Your task to perform on an android device: toggle data saver in the chrome app Image 0: 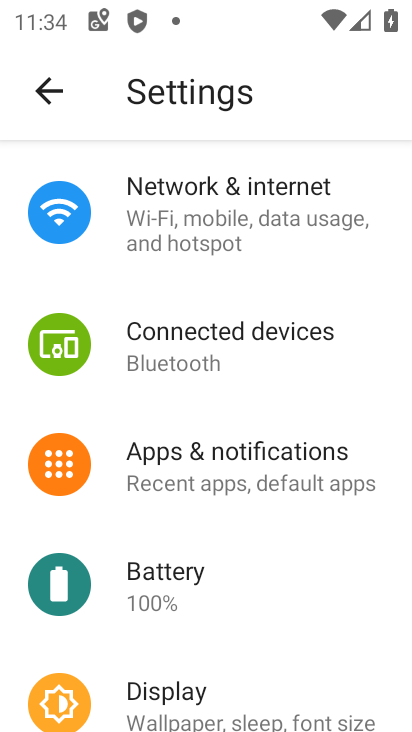
Step 0: press home button
Your task to perform on an android device: toggle data saver in the chrome app Image 1: 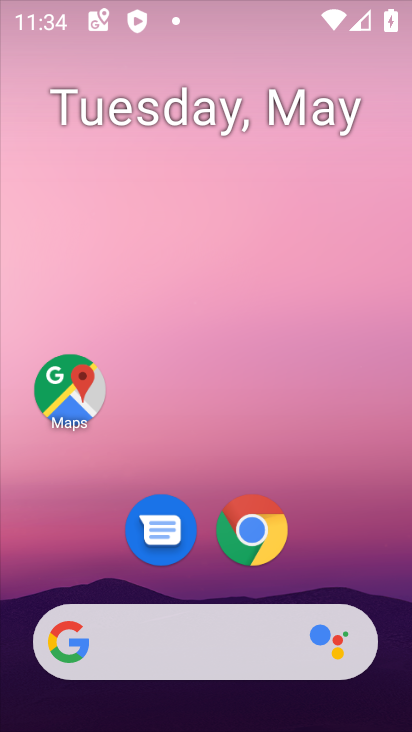
Step 1: drag from (260, 641) to (268, 223)
Your task to perform on an android device: toggle data saver in the chrome app Image 2: 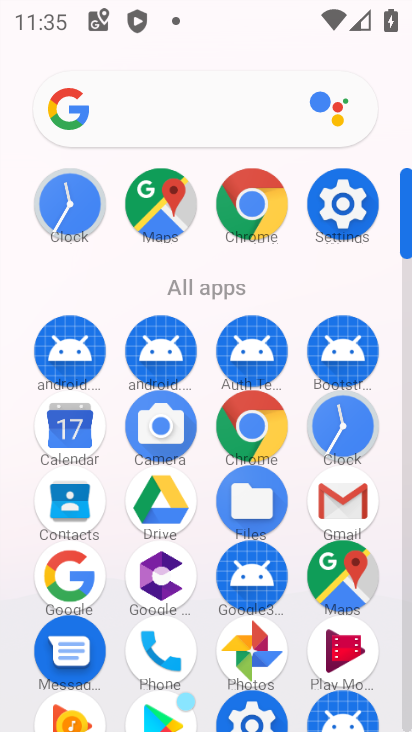
Step 2: click (220, 417)
Your task to perform on an android device: toggle data saver in the chrome app Image 3: 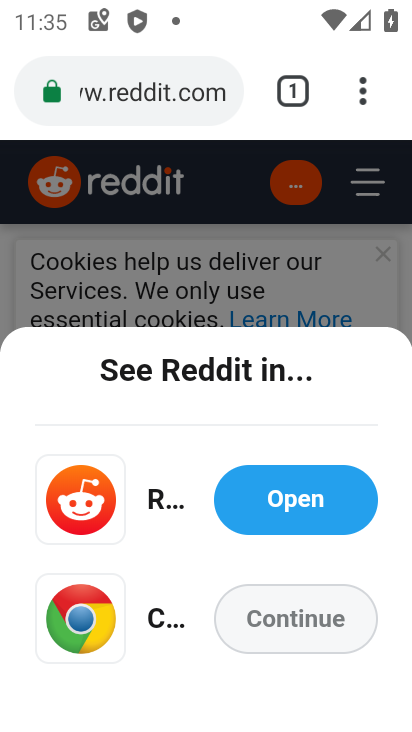
Step 3: click (247, 373)
Your task to perform on an android device: toggle data saver in the chrome app Image 4: 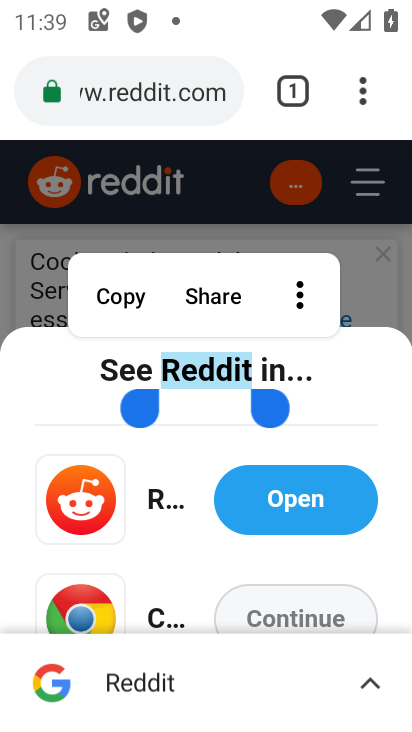
Step 4: drag from (354, 89) to (167, 549)
Your task to perform on an android device: toggle data saver in the chrome app Image 5: 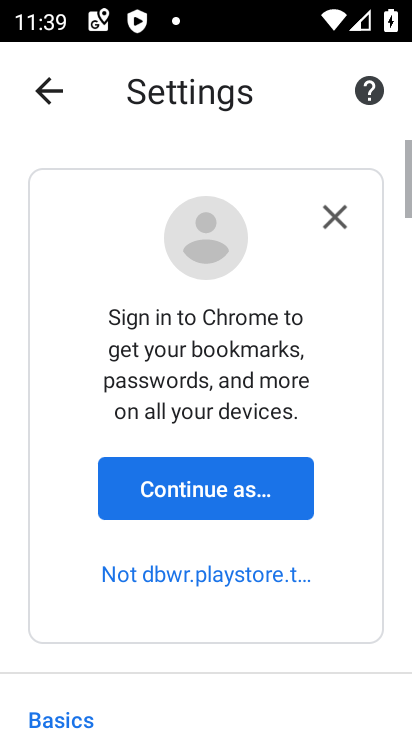
Step 5: drag from (186, 595) to (182, 161)
Your task to perform on an android device: toggle data saver in the chrome app Image 6: 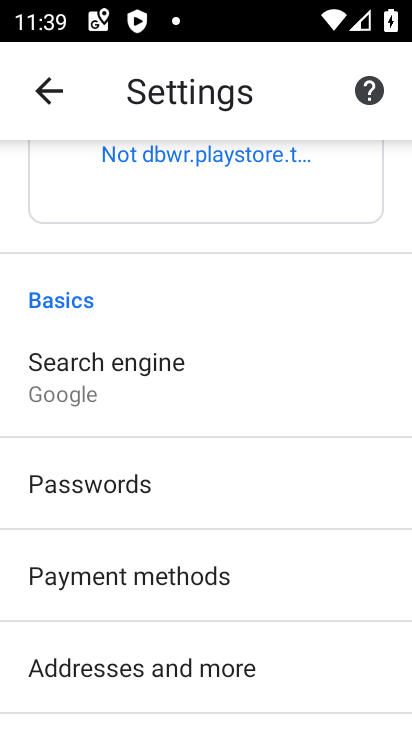
Step 6: drag from (257, 490) to (191, 213)
Your task to perform on an android device: toggle data saver in the chrome app Image 7: 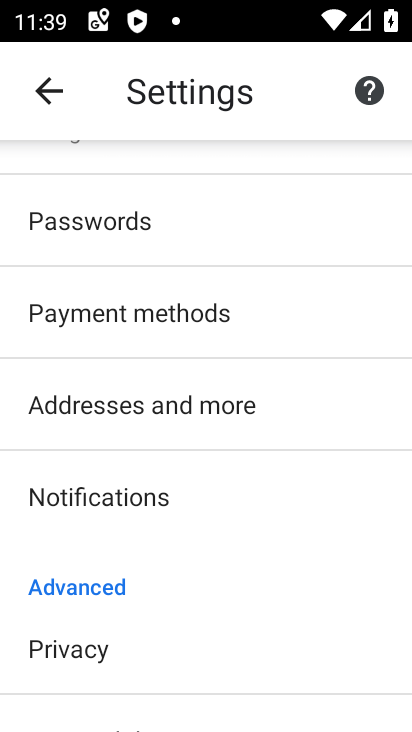
Step 7: drag from (159, 636) to (167, 422)
Your task to perform on an android device: toggle data saver in the chrome app Image 8: 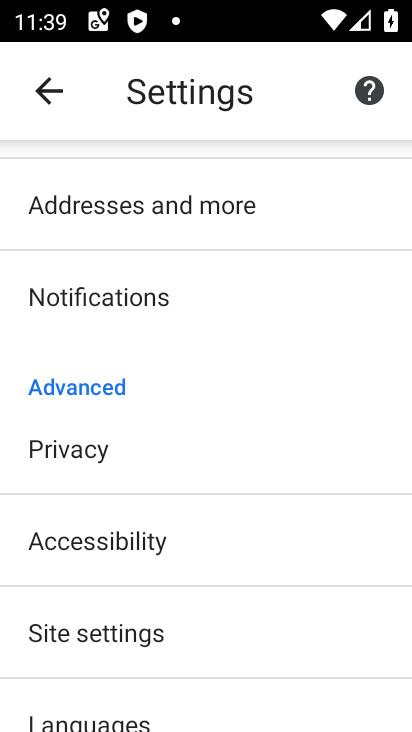
Step 8: drag from (173, 640) to (210, 418)
Your task to perform on an android device: toggle data saver in the chrome app Image 9: 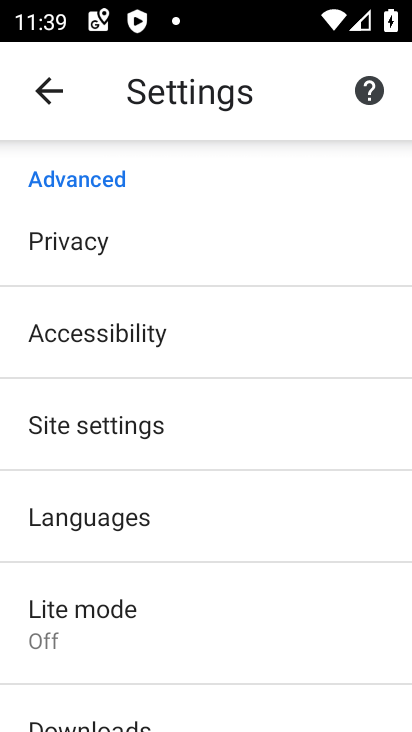
Step 9: click (173, 629)
Your task to perform on an android device: toggle data saver in the chrome app Image 10: 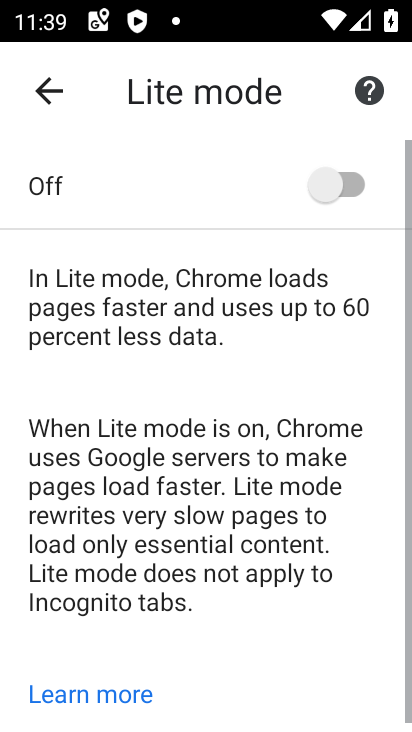
Step 10: click (344, 173)
Your task to perform on an android device: toggle data saver in the chrome app Image 11: 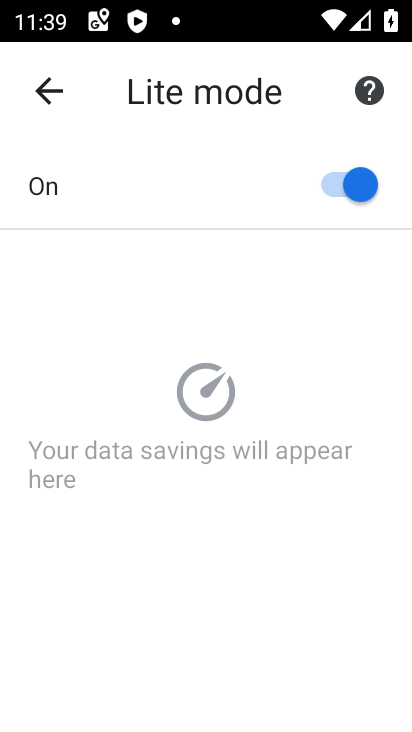
Step 11: task complete